Your task to perform on an android device: turn off javascript in the chrome app Image 0: 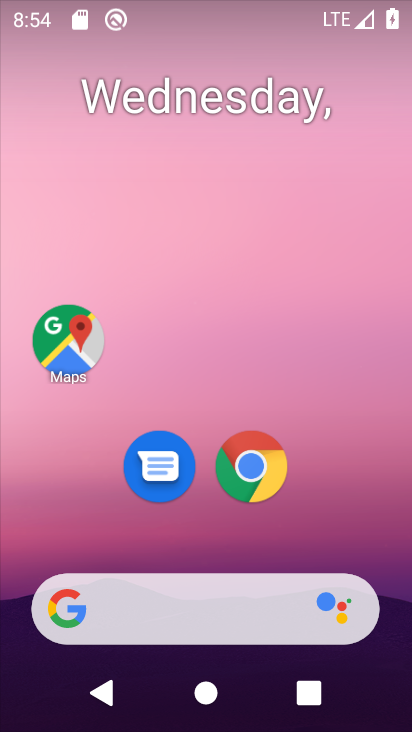
Step 0: click (250, 460)
Your task to perform on an android device: turn off javascript in the chrome app Image 1: 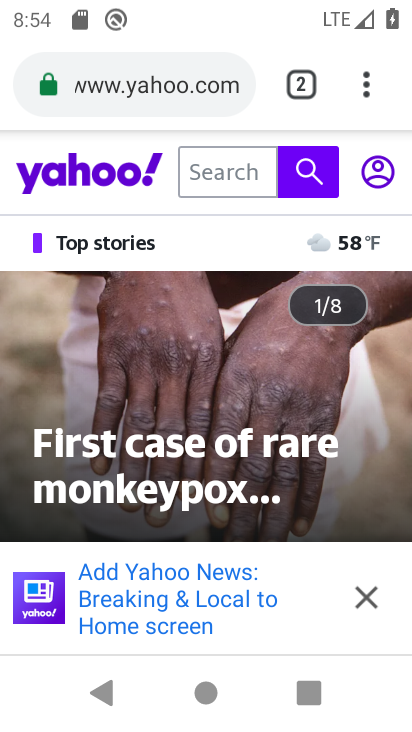
Step 1: click (367, 94)
Your task to perform on an android device: turn off javascript in the chrome app Image 2: 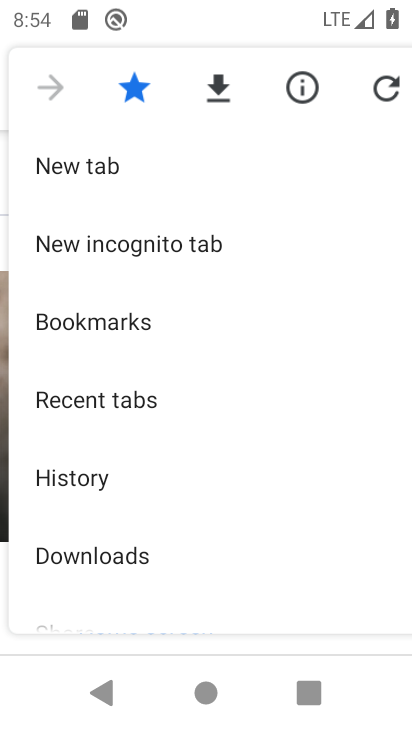
Step 2: drag from (182, 567) to (167, 211)
Your task to perform on an android device: turn off javascript in the chrome app Image 3: 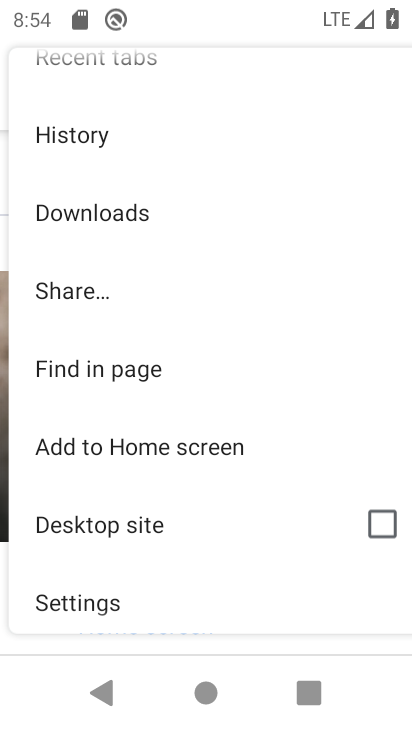
Step 3: drag from (154, 561) to (118, 248)
Your task to perform on an android device: turn off javascript in the chrome app Image 4: 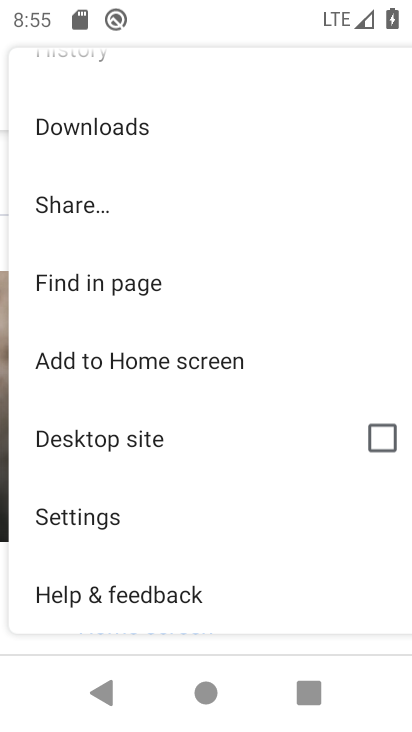
Step 4: click (76, 518)
Your task to perform on an android device: turn off javascript in the chrome app Image 5: 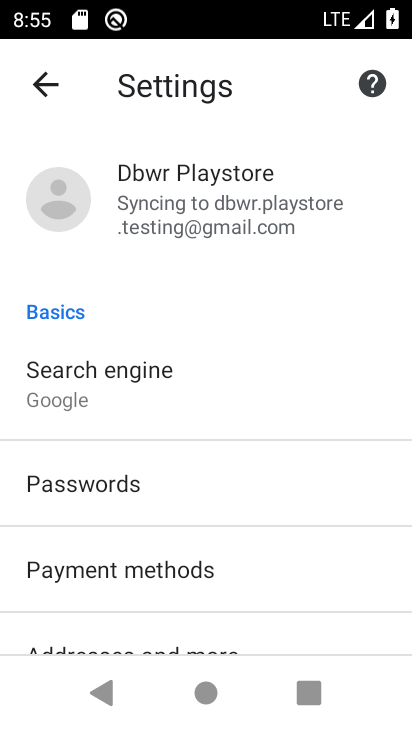
Step 5: drag from (186, 615) to (187, 291)
Your task to perform on an android device: turn off javascript in the chrome app Image 6: 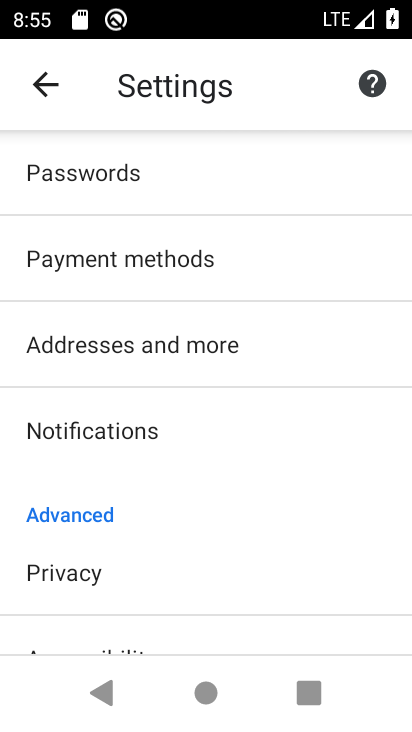
Step 6: drag from (189, 598) to (184, 235)
Your task to perform on an android device: turn off javascript in the chrome app Image 7: 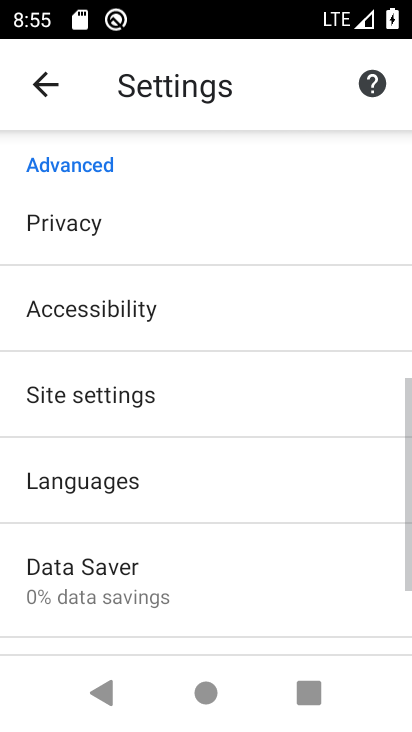
Step 7: click (95, 391)
Your task to perform on an android device: turn off javascript in the chrome app Image 8: 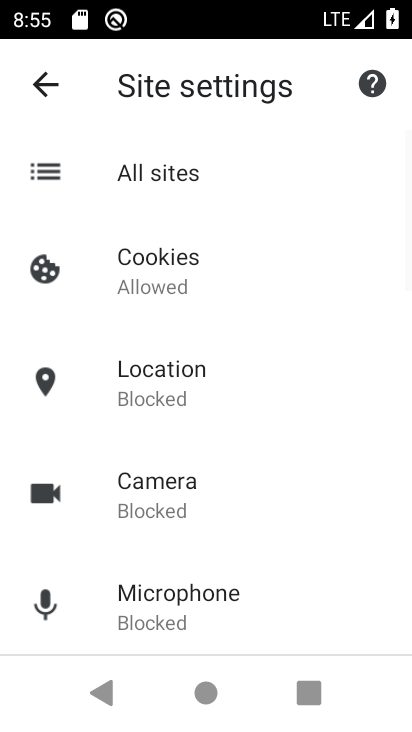
Step 8: drag from (200, 616) to (223, 313)
Your task to perform on an android device: turn off javascript in the chrome app Image 9: 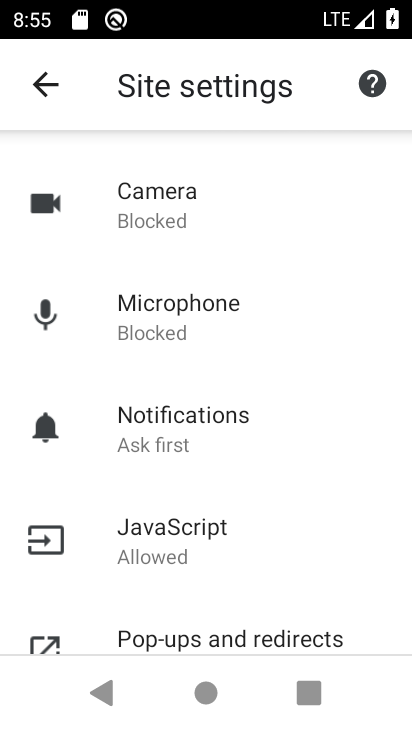
Step 9: click (167, 542)
Your task to perform on an android device: turn off javascript in the chrome app Image 10: 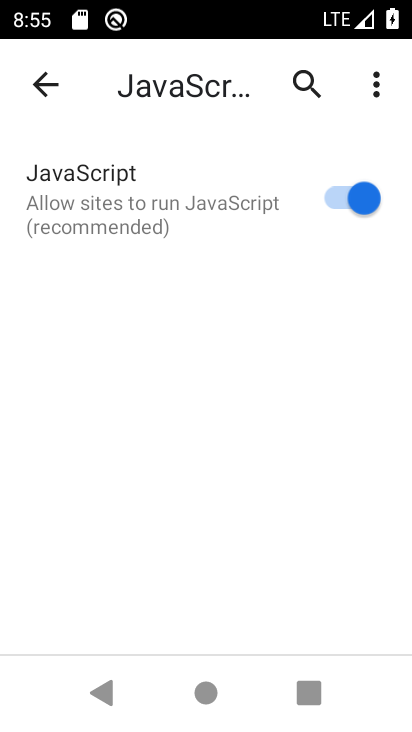
Step 10: click (335, 192)
Your task to perform on an android device: turn off javascript in the chrome app Image 11: 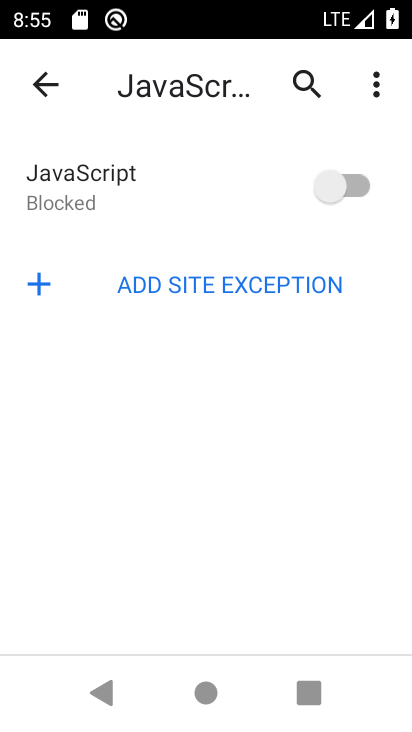
Step 11: task complete